Your task to perform on an android device: open the mobile data screen to see how much data has been used Image 0: 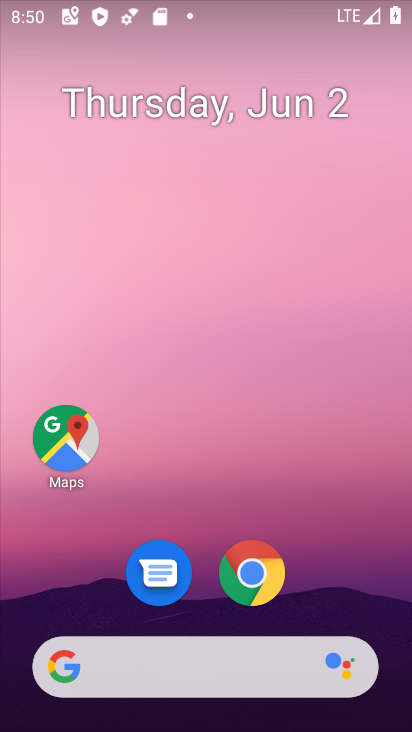
Step 0: press home button
Your task to perform on an android device: open the mobile data screen to see how much data has been used Image 1: 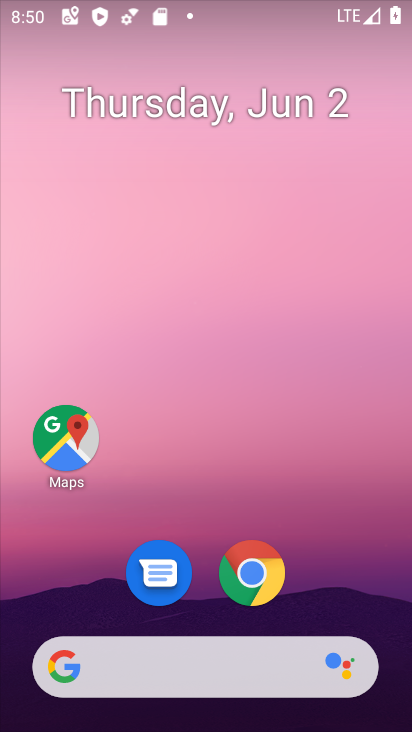
Step 1: drag from (288, 11) to (242, 484)
Your task to perform on an android device: open the mobile data screen to see how much data has been used Image 2: 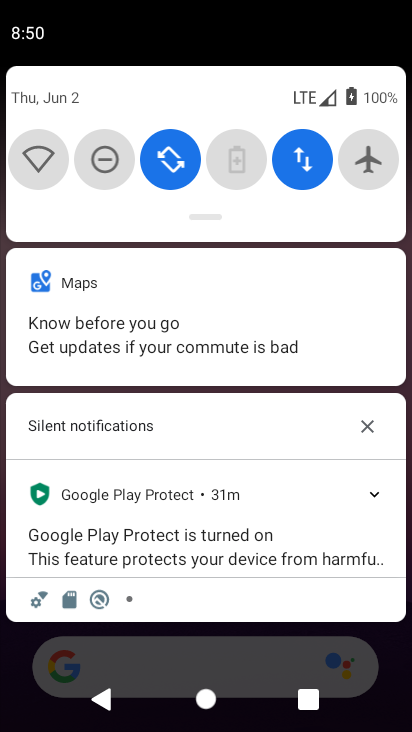
Step 2: click (292, 151)
Your task to perform on an android device: open the mobile data screen to see how much data has been used Image 3: 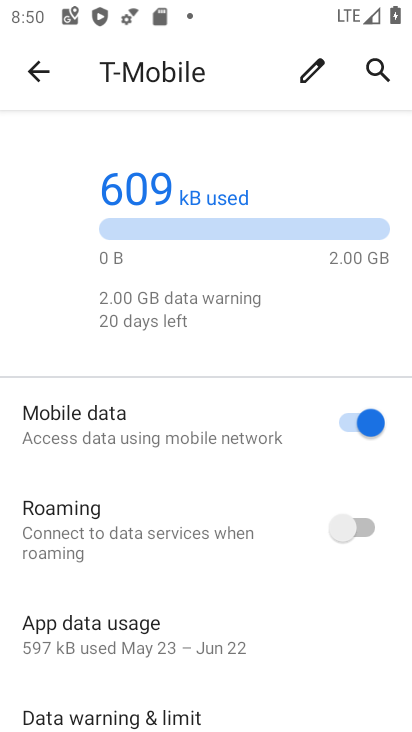
Step 3: task complete